Your task to perform on an android device: Open internet settings Image 0: 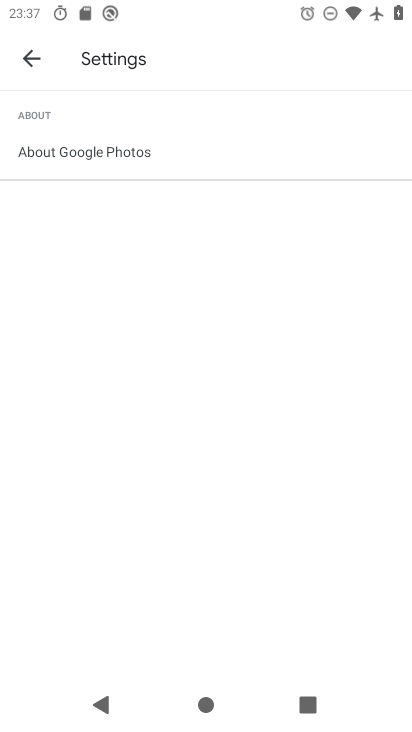
Step 0: drag from (227, 481) to (253, 400)
Your task to perform on an android device: Open internet settings Image 1: 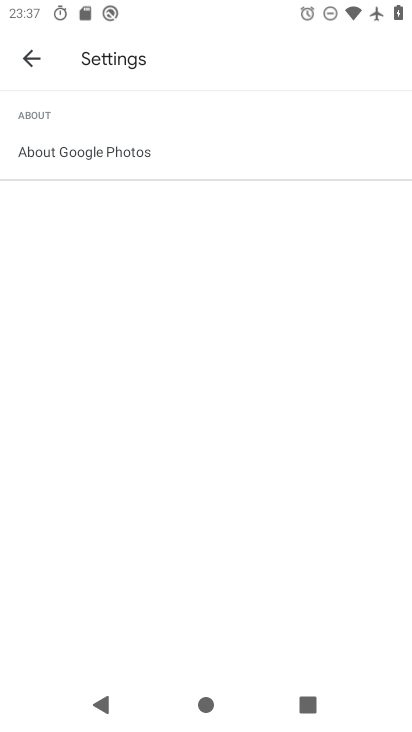
Step 1: press home button
Your task to perform on an android device: Open internet settings Image 2: 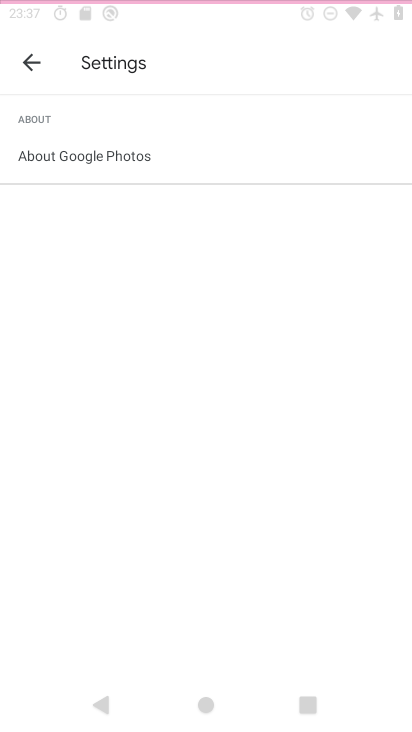
Step 2: drag from (117, 649) to (202, 407)
Your task to perform on an android device: Open internet settings Image 3: 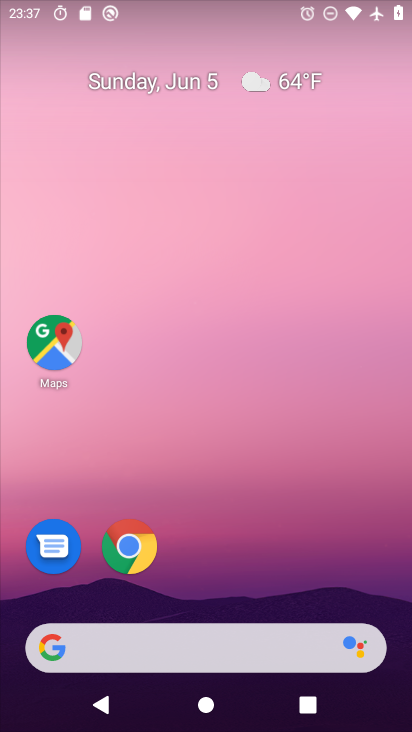
Step 3: drag from (189, 605) to (406, 108)
Your task to perform on an android device: Open internet settings Image 4: 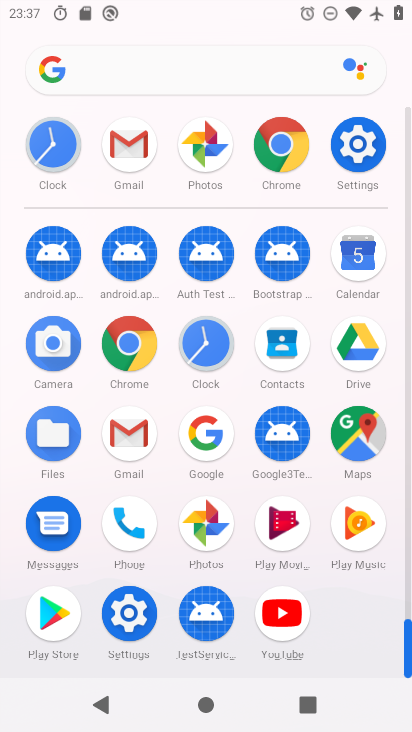
Step 4: click (372, 166)
Your task to perform on an android device: Open internet settings Image 5: 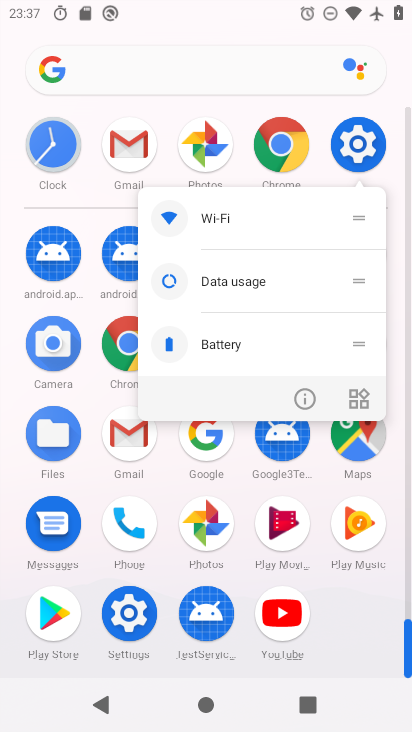
Step 5: click (304, 402)
Your task to perform on an android device: Open internet settings Image 6: 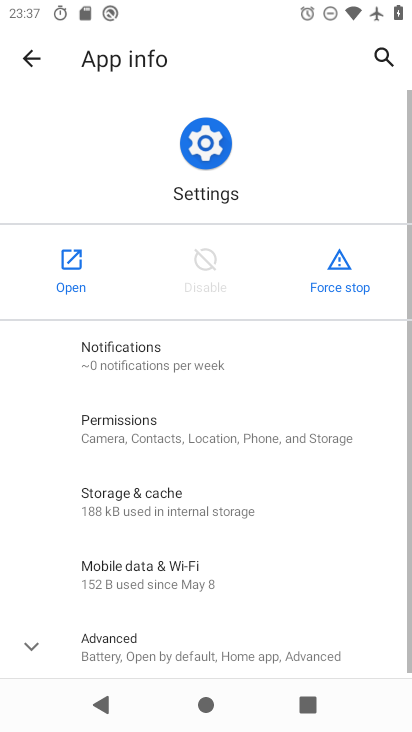
Step 6: click (83, 281)
Your task to perform on an android device: Open internet settings Image 7: 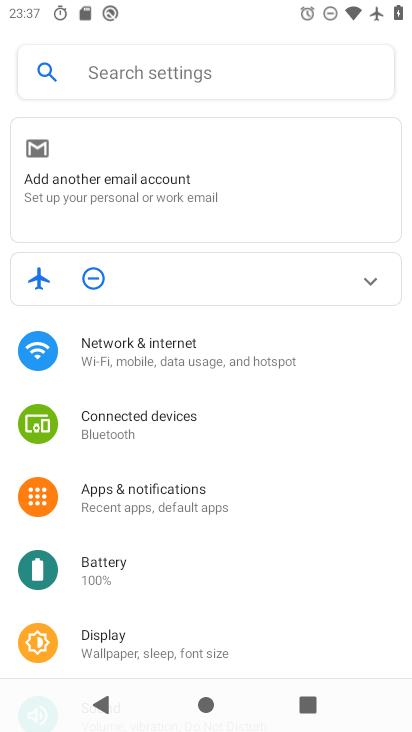
Step 7: click (166, 372)
Your task to perform on an android device: Open internet settings Image 8: 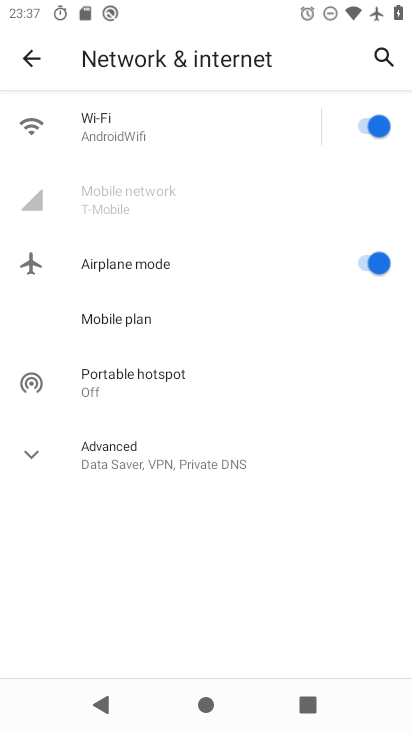
Step 8: task complete